Your task to perform on an android device: turn pop-ups on in chrome Image 0: 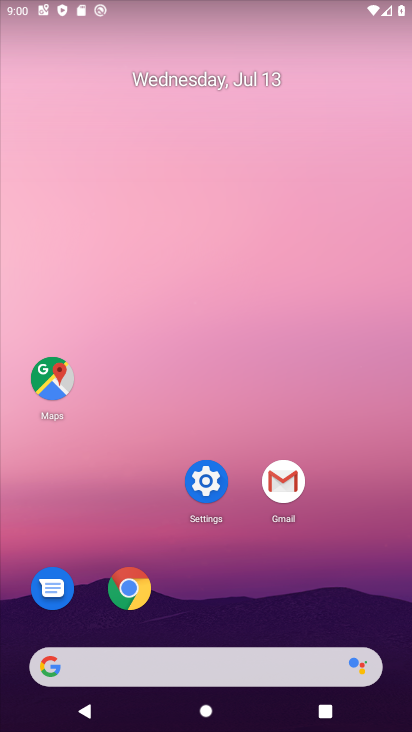
Step 0: click (124, 588)
Your task to perform on an android device: turn pop-ups on in chrome Image 1: 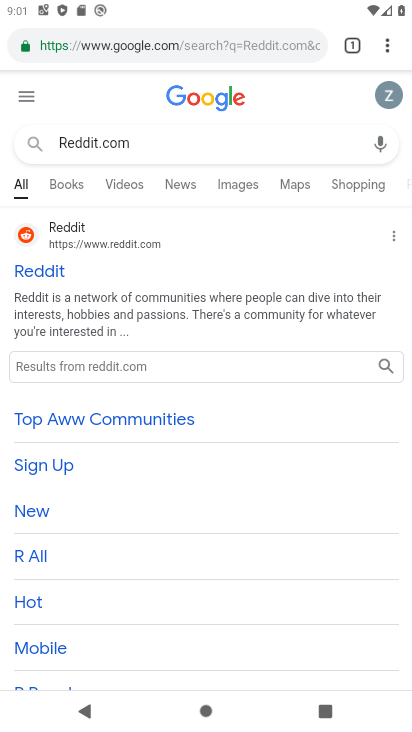
Step 1: click (384, 45)
Your task to perform on an android device: turn pop-ups on in chrome Image 2: 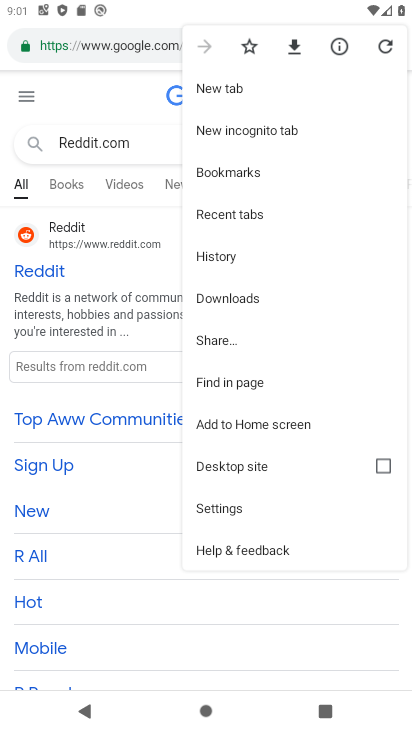
Step 2: click (231, 509)
Your task to perform on an android device: turn pop-ups on in chrome Image 3: 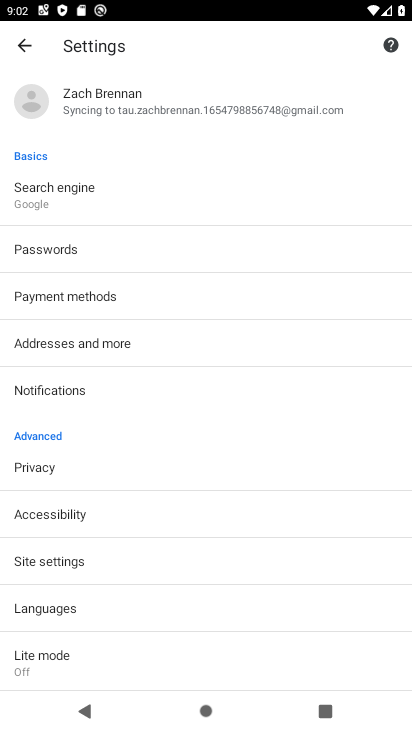
Step 3: click (49, 564)
Your task to perform on an android device: turn pop-ups on in chrome Image 4: 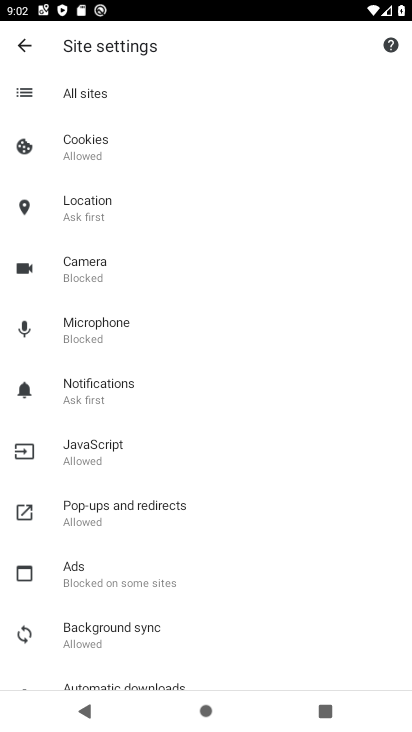
Step 4: click (95, 516)
Your task to perform on an android device: turn pop-ups on in chrome Image 5: 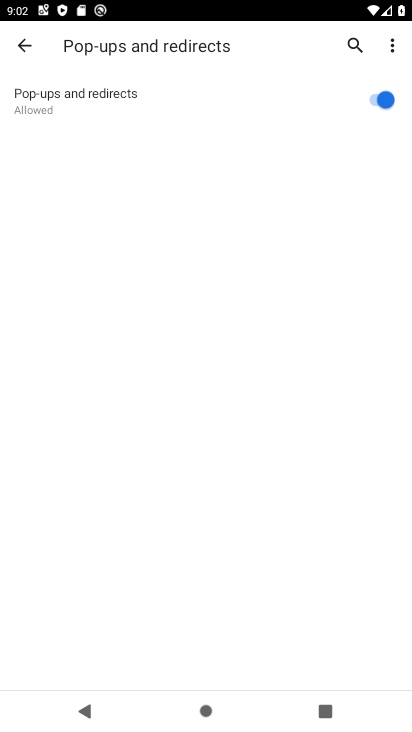
Step 5: task complete